Your task to perform on an android device: Open Android settings Image 0: 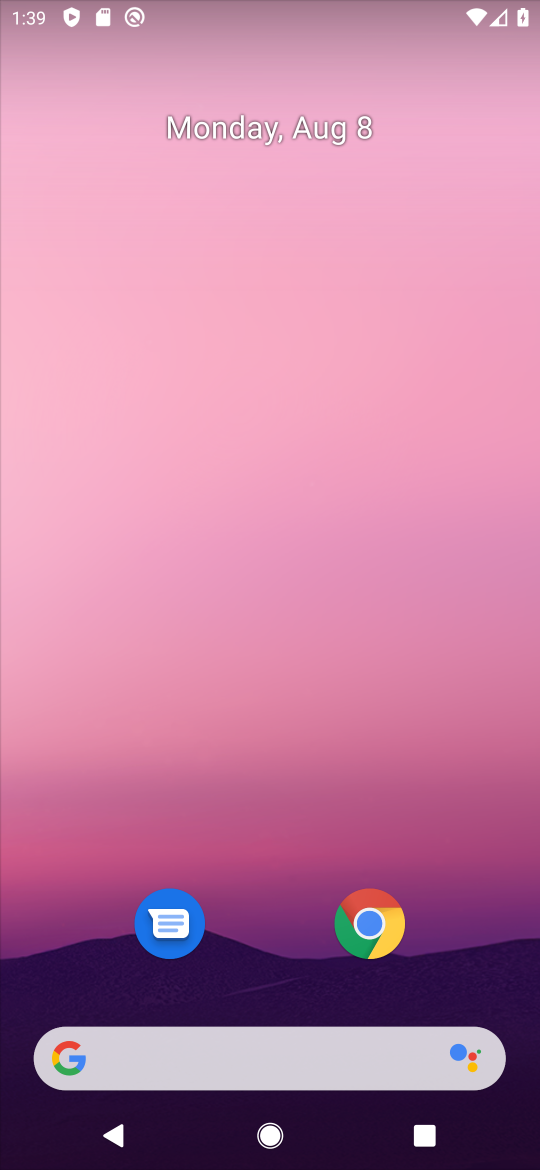
Step 0: drag from (287, 871) to (300, 310)
Your task to perform on an android device: Open Android settings Image 1: 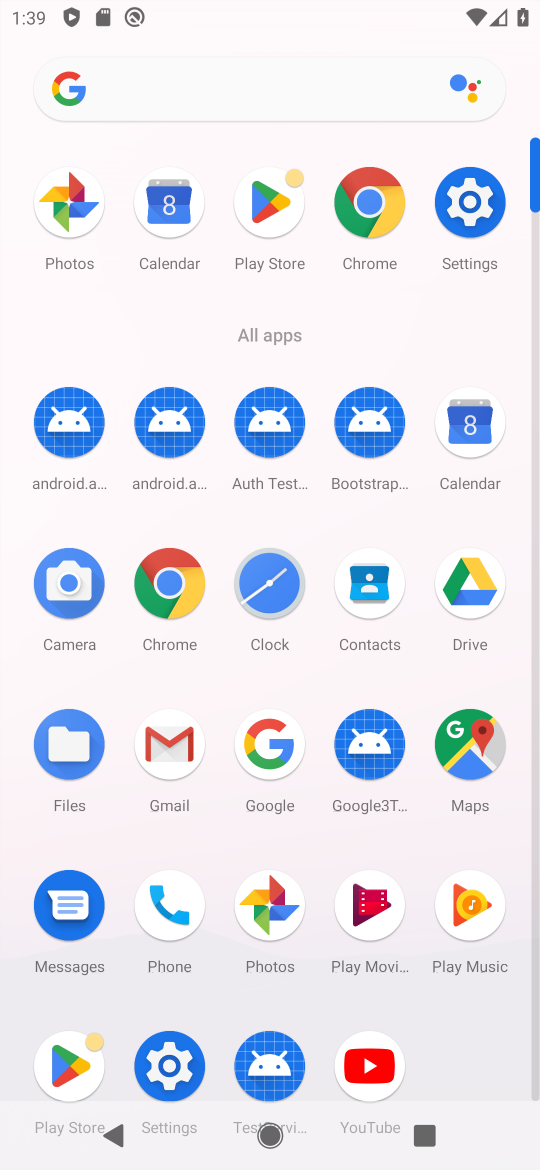
Step 1: click (458, 212)
Your task to perform on an android device: Open Android settings Image 2: 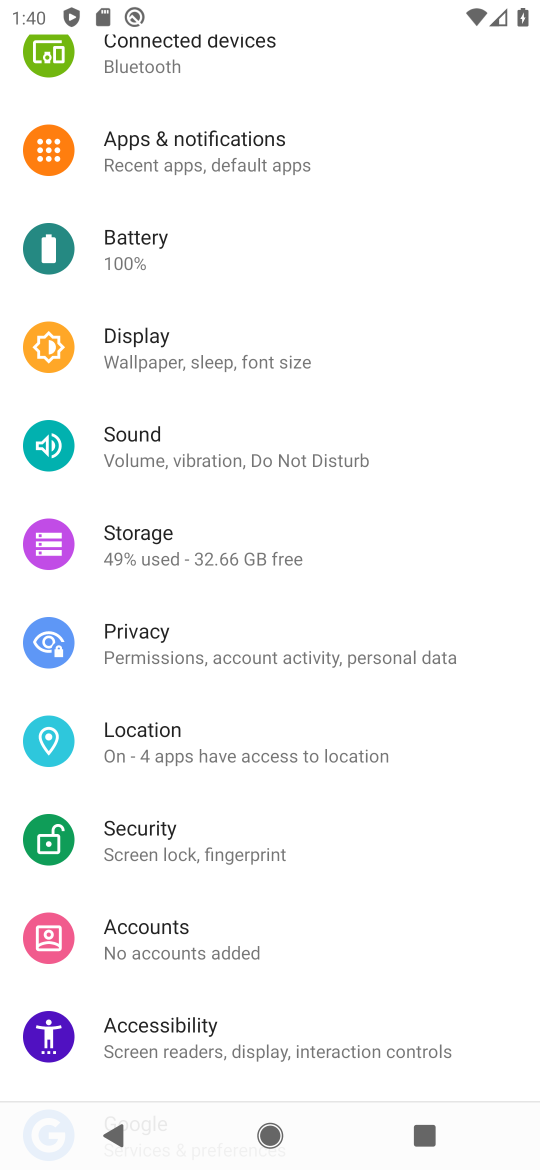
Step 2: task complete